Your task to perform on an android device: What is the capital of Argentina? Image 0: 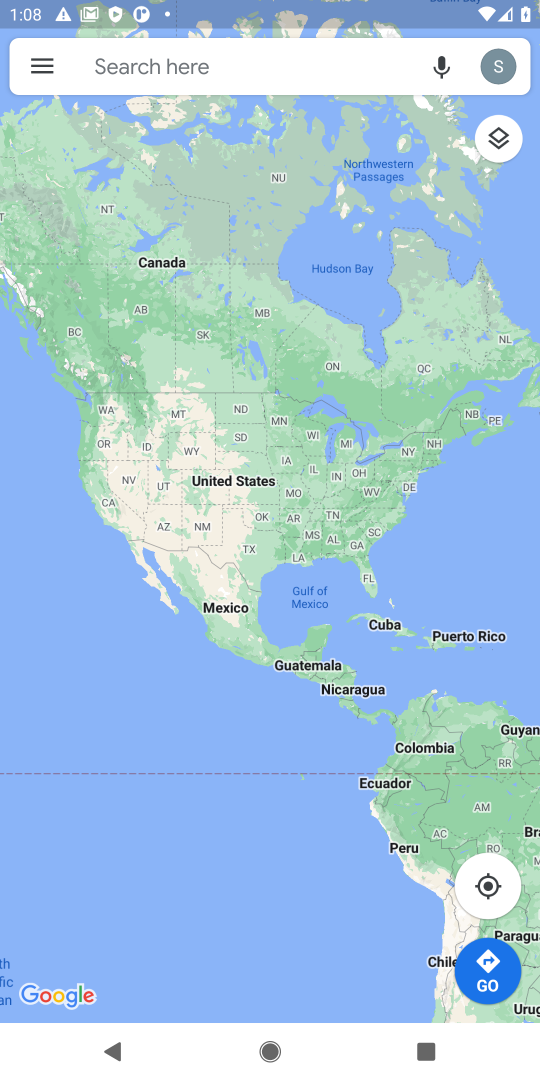
Step 0: press home button
Your task to perform on an android device: What is the capital of Argentina? Image 1: 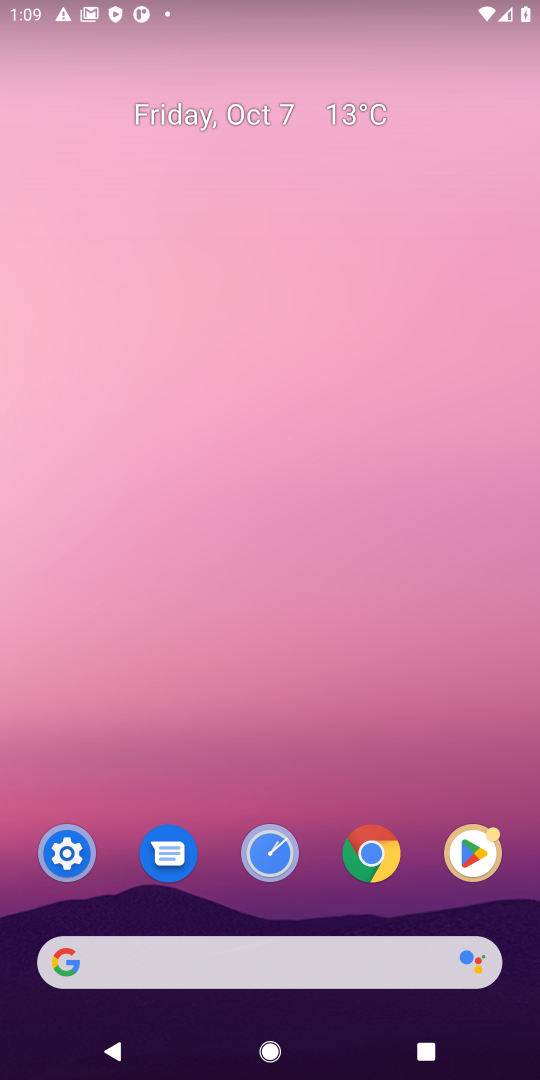
Step 1: click (385, 973)
Your task to perform on an android device: What is the capital of Argentina? Image 2: 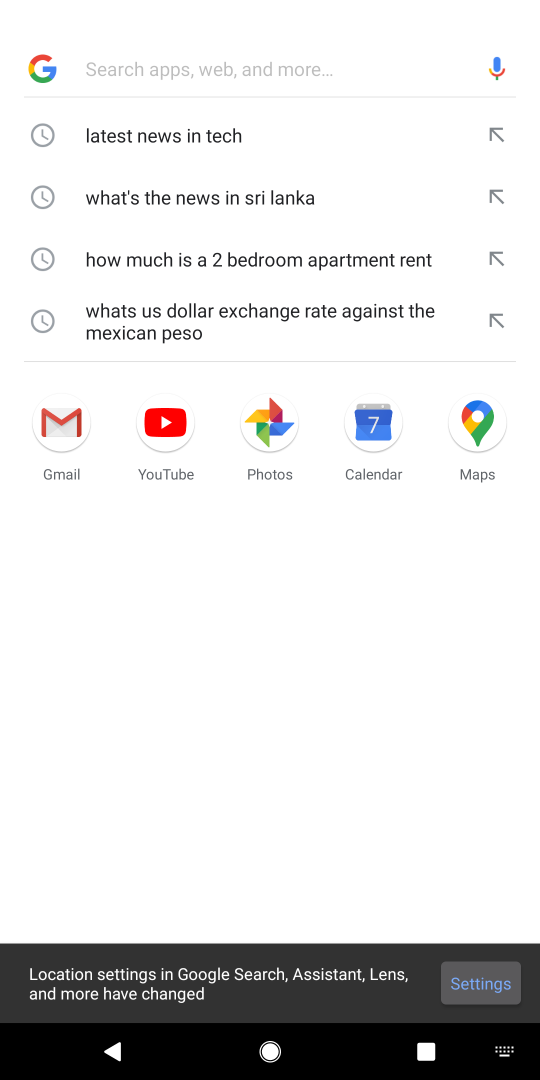
Step 2: type "What is the capital of Argentina?"
Your task to perform on an android device: What is the capital of Argentina? Image 3: 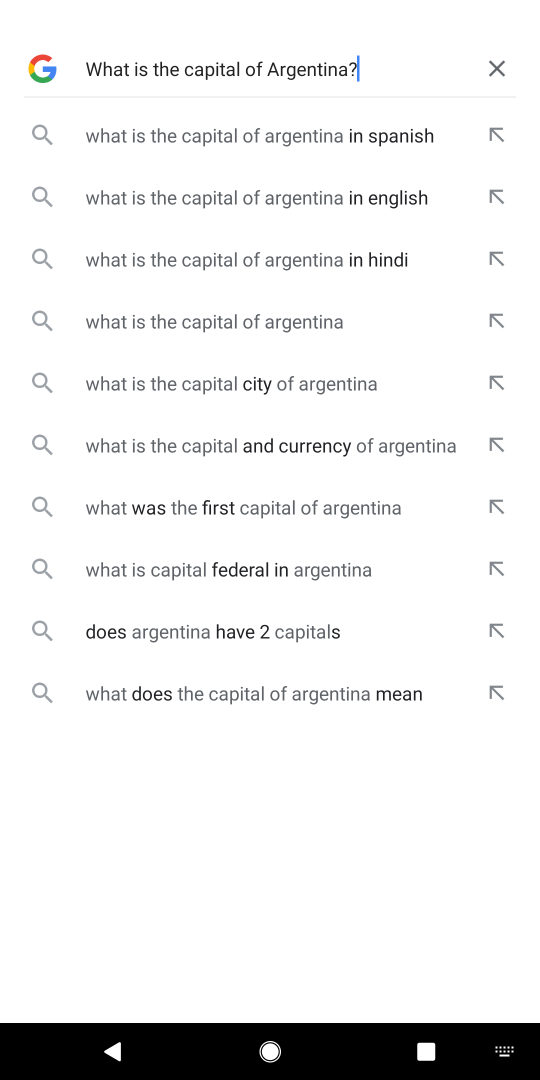
Step 3: click (356, 124)
Your task to perform on an android device: What is the capital of Argentina? Image 4: 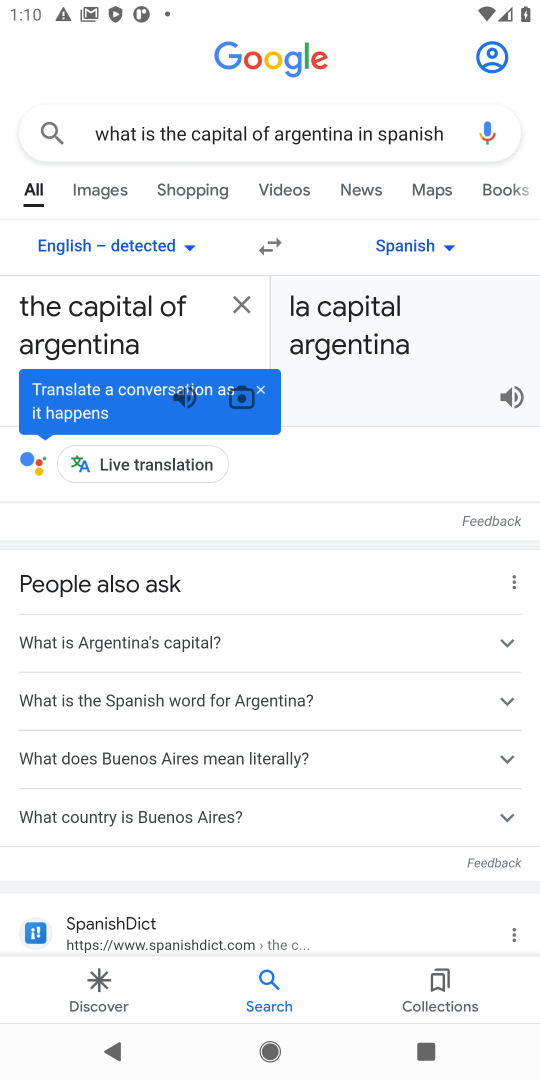
Step 4: task complete